Your task to perform on an android device: add a label to a message in the gmail app Image 0: 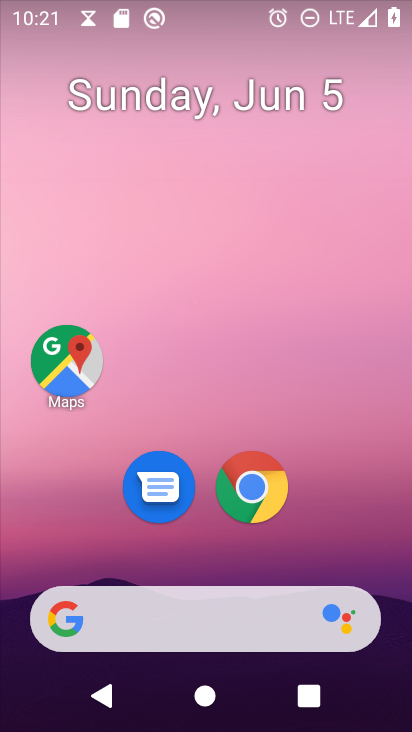
Step 0: drag from (290, 488) to (320, 151)
Your task to perform on an android device: add a label to a message in the gmail app Image 1: 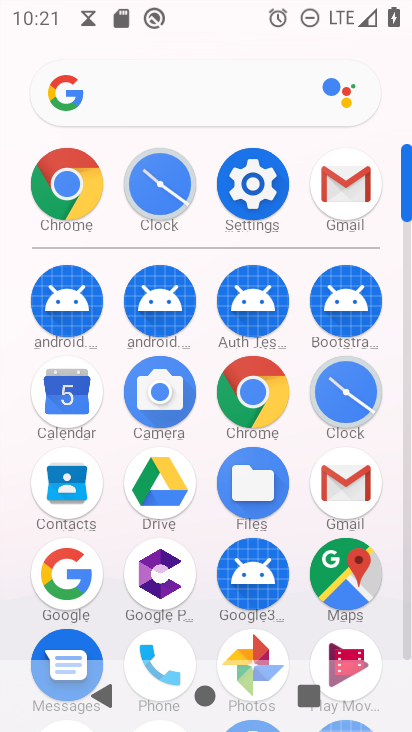
Step 1: click (347, 496)
Your task to perform on an android device: add a label to a message in the gmail app Image 2: 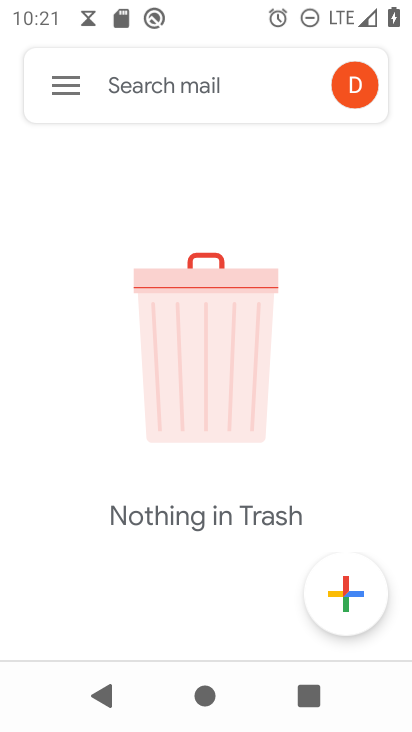
Step 2: click (44, 78)
Your task to perform on an android device: add a label to a message in the gmail app Image 3: 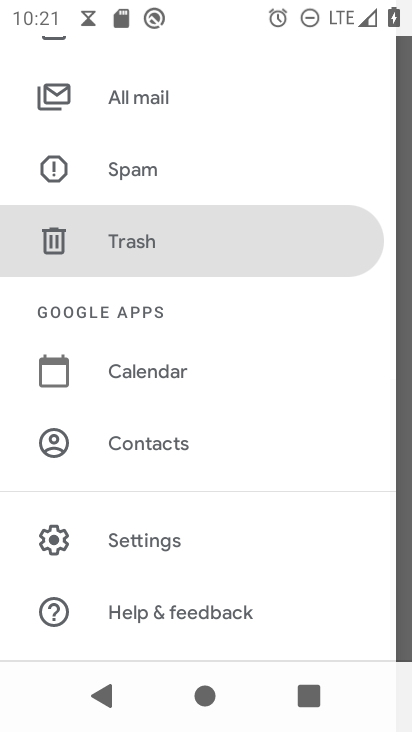
Step 3: click (153, 88)
Your task to perform on an android device: add a label to a message in the gmail app Image 4: 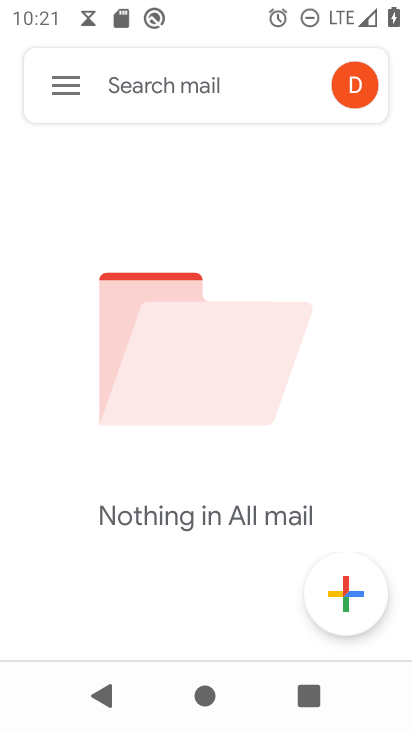
Step 4: task complete